Your task to perform on an android device: turn off notifications in google photos Image 0: 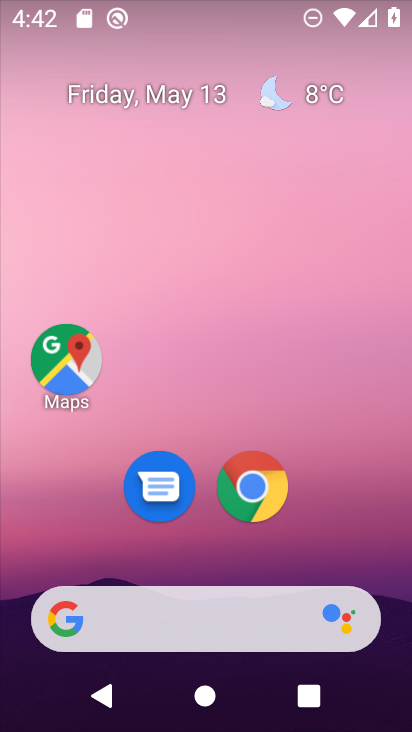
Step 0: drag from (350, 540) to (307, 219)
Your task to perform on an android device: turn off notifications in google photos Image 1: 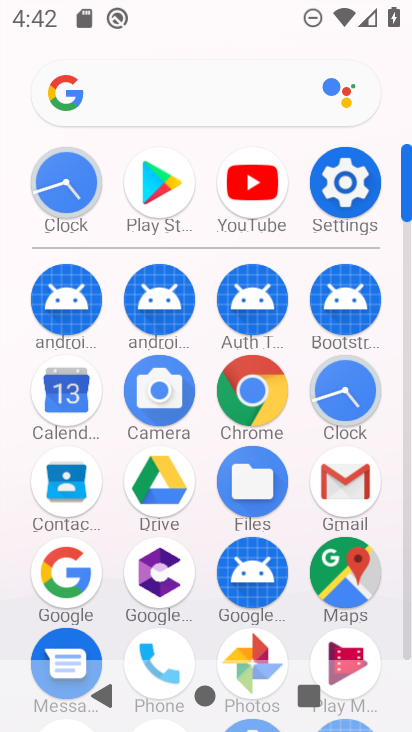
Step 1: click (260, 638)
Your task to perform on an android device: turn off notifications in google photos Image 2: 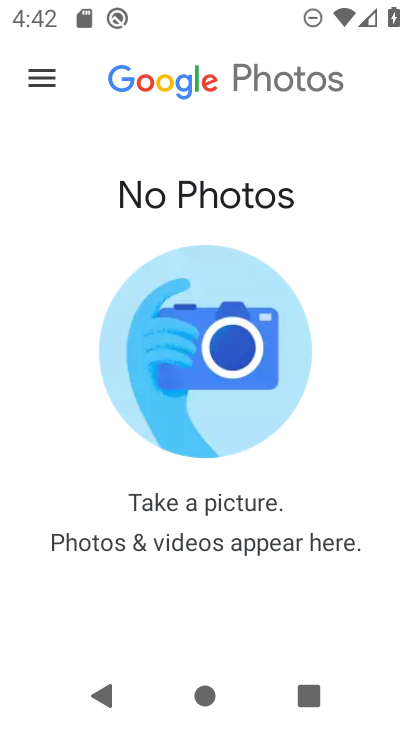
Step 2: click (24, 75)
Your task to perform on an android device: turn off notifications in google photos Image 3: 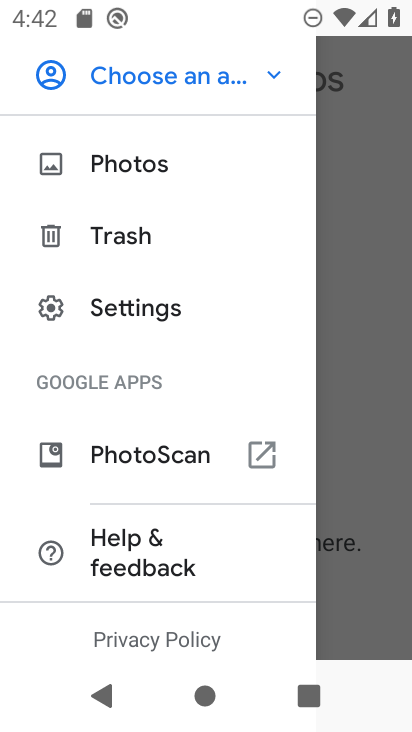
Step 3: click (91, 271)
Your task to perform on an android device: turn off notifications in google photos Image 4: 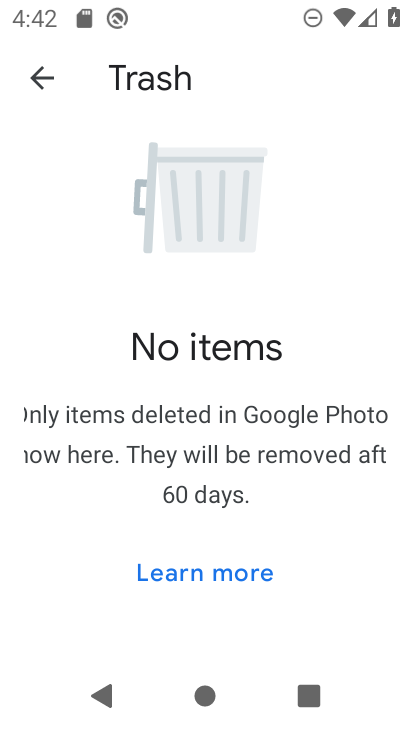
Step 4: click (45, 63)
Your task to perform on an android device: turn off notifications in google photos Image 5: 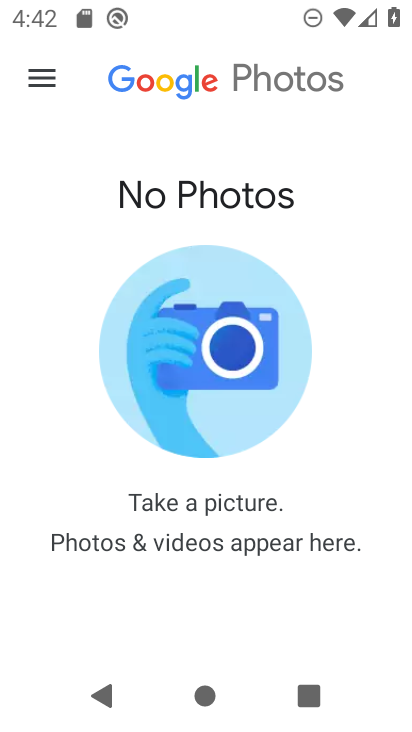
Step 5: click (51, 86)
Your task to perform on an android device: turn off notifications in google photos Image 6: 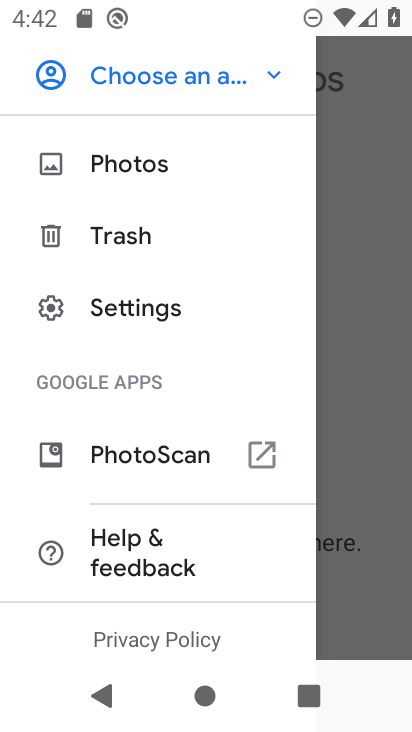
Step 6: click (64, 296)
Your task to perform on an android device: turn off notifications in google photos Image 7: 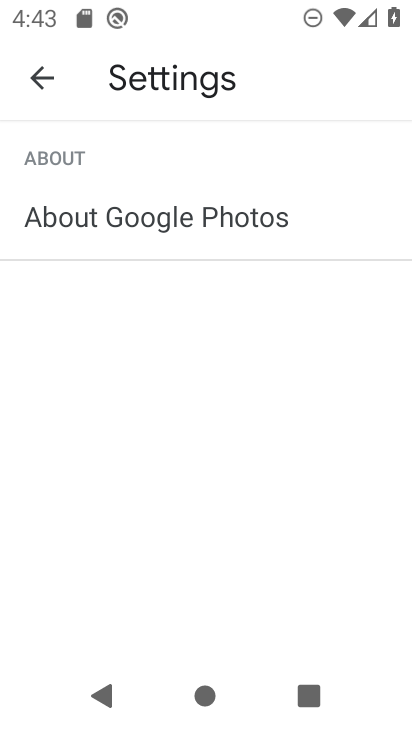
Step 7: click (46, 107)
Your task to perform on an android device: turn off notifications in google photos Image 8: 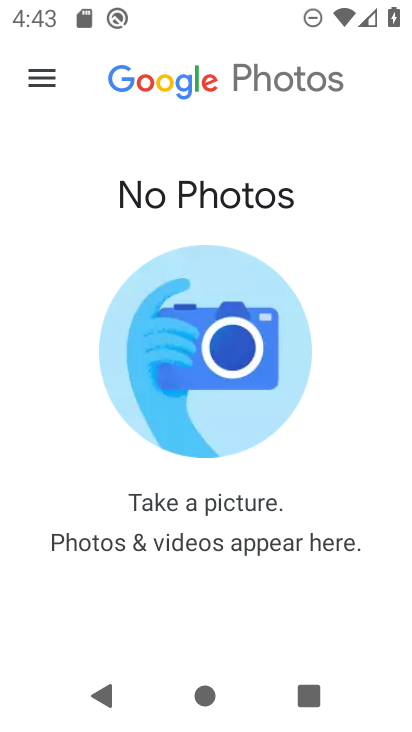
Step 8: task complete